Your task to perform on an android device: Go to accessibility settings Image 0: 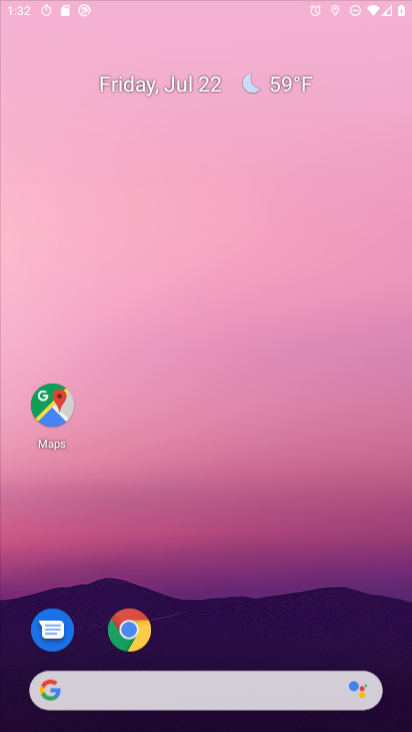
Step 0: press home button
Your task to perform on an android device: Go to accessibility settings Image 1: 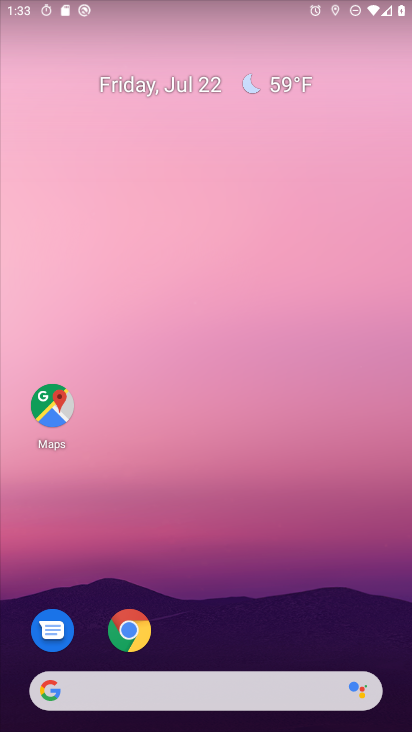
Step 1: drag from (258, 614) to (233, 3)
Your task to perform on an android device: Go to accessibility settings Image 2: 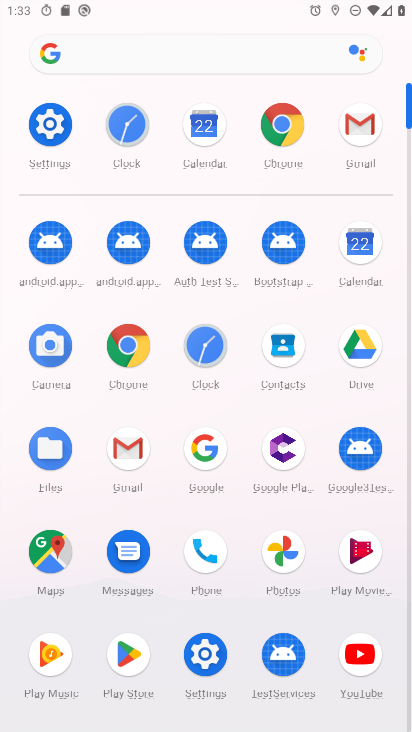
Step 2: click (45, 134)
Your task to perform on an android device: Go to accessibility settings Image 3: 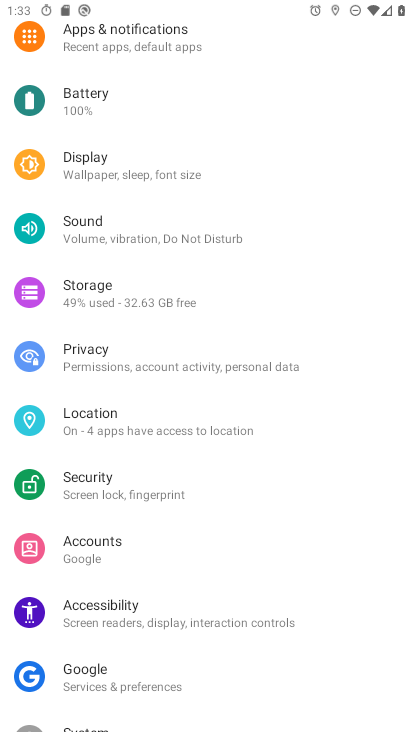
Step 3: click (90, 611)
Your task to perform on an android device: Go to accessibility settings Image 4: 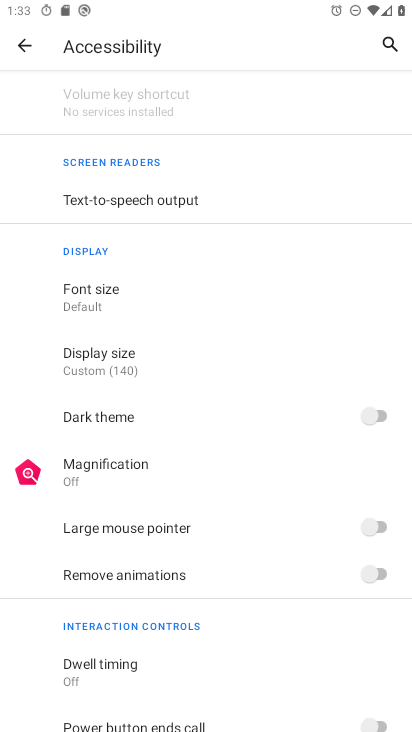
Step 4: task complete